Your task to perform on an android device: Empty the shopping cart on newegg. Search for "panasonic triple a" on newegg, select the first entry, add it to the cart, then select checkout. Image 0: 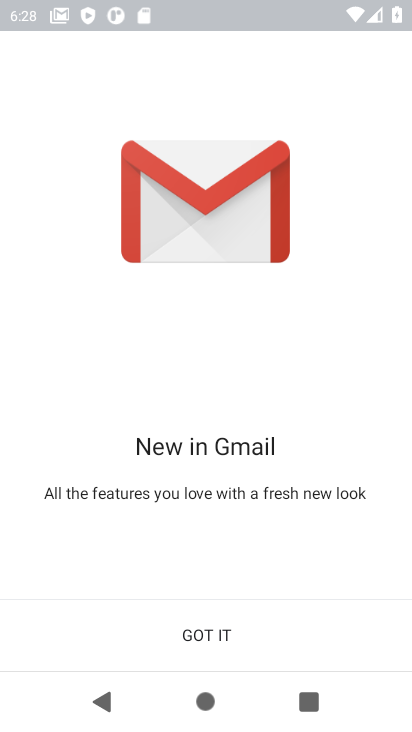
Step 0: press home button
Your task to perform on an android device: Empty the shopping cart on newegg. Search for "panasonic triple a" on newegg, select the first entry, add it to the cart, then select checkout. Image 1: 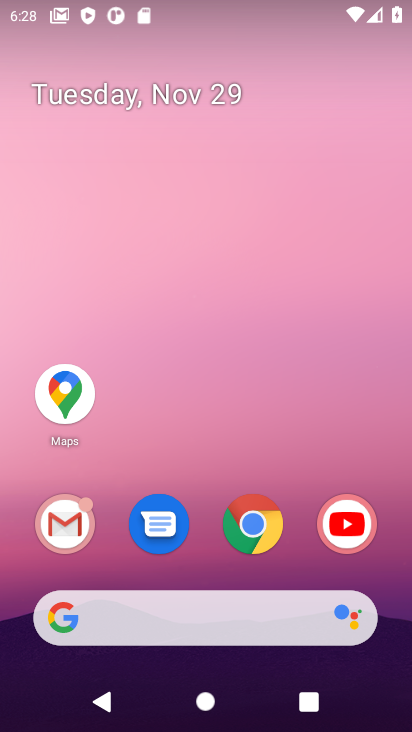
Step 1: click (251, 519)
Your task to perform on an android device: Empty the shopping cart on newegg. Search for "panasonic triple a" on newegg, select the first entry, add it to the cart, then select checkout. Image 2: 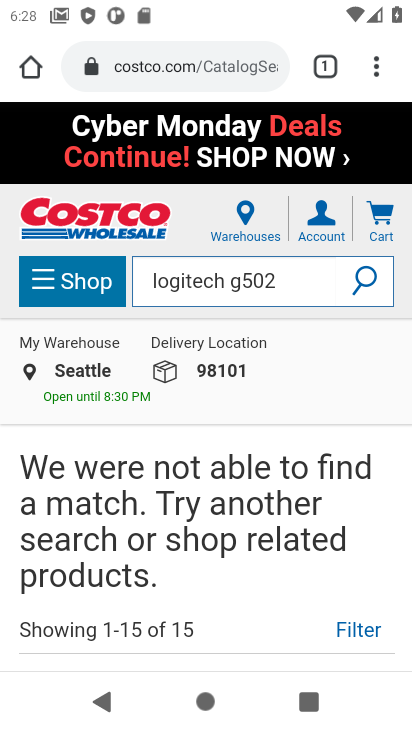
Step 2: click (182, 61)
Your task to perform on an android device: Empty the shopping cart on newegg. Search for "panasonic triple a" on newegg, select the first entry, add it to the cart, then select checkout. Image 3: 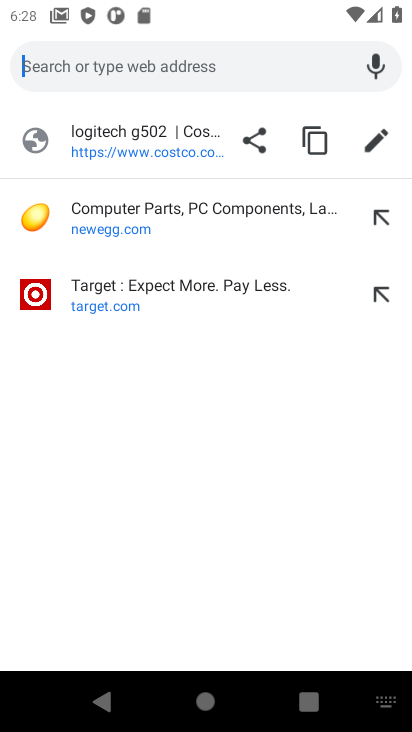
Step 3: click (97, 227)
Your task to perform on an android device: Empty the shopping cart on newegg. Search for "panasonic triple a" on newegg, select the first entry, add it to the cart, then select checkout. Image 4: 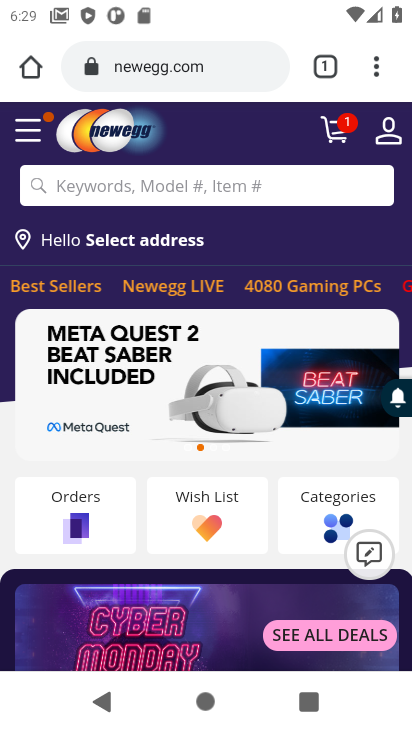
Step 4: click (332, 133)
Your task to perform on an android device: Empty the shopping cart on newegg. Search for "panasonic triple a" on newegg, select the first entry, add it to the cart, then select checkout. Image 5: 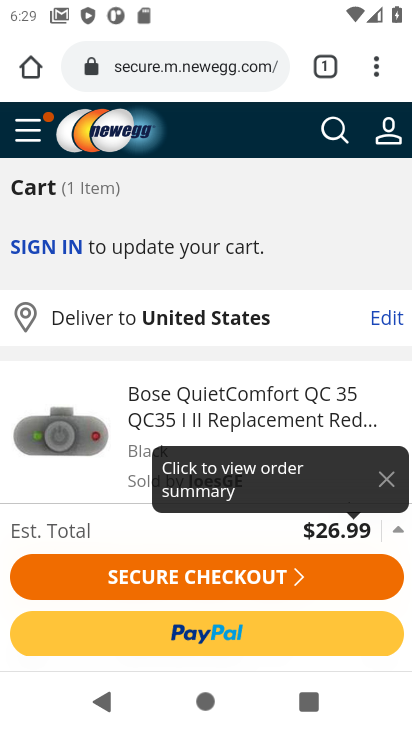
Step 5: drag from (99, 475) to (98, 233)
Your task to perform on an android device: Empty the shopping cart on newegg. Search for "panasonic triple a" on newegg, select the first entry, add it to the cart, then select checkout. Image 6: 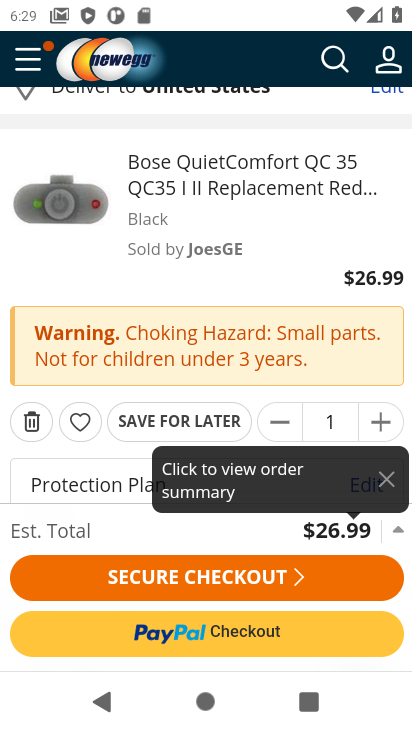
Step 6: click (28, 426)
Your task to perform on an android device: Empty the shopping cart on newegg. Search for "panasonic triple a" on newegg, select the first entry, add it to the cart, then select checkout. Image 7: 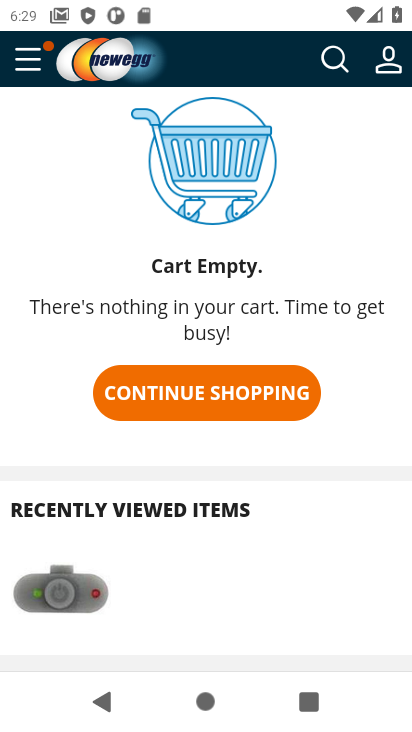
Step 7: click (338, 51)
Your task to perform on an android device: Empty the shopping cart on newegg. Search for "panasonic triple a" on newegg, select the first entry, add it to the cart, then select checkout. Image 8: 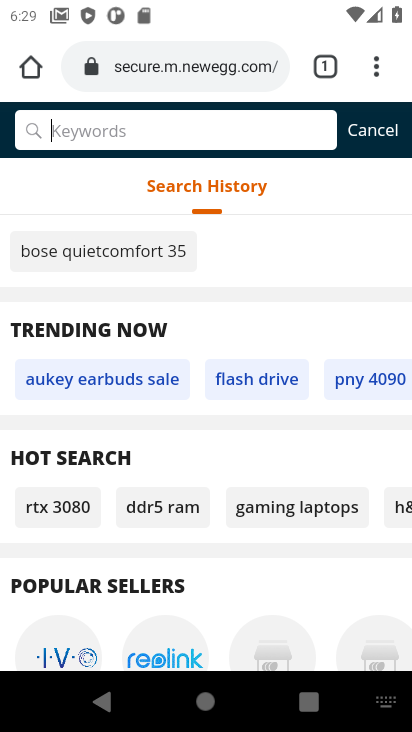
Step 8: type "panasonic triple a"
Your task to perform on an android device: Empty the shopping cart on newegg. Search for "panasonic triple a" on newegg, select the first entry, add it to the cart, then select checkout. Image 9: 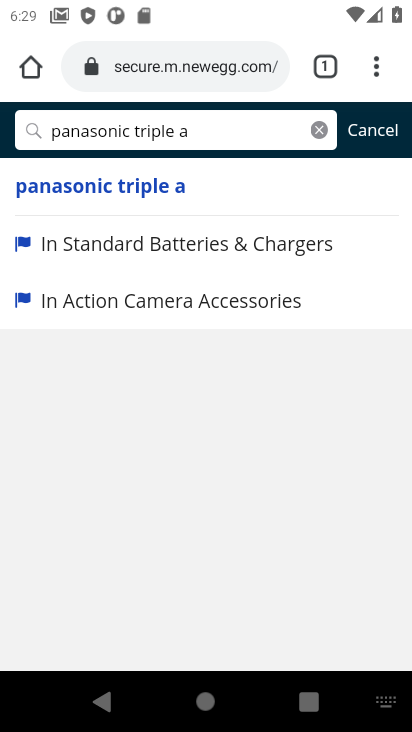
Step 9: click (146, 192)
Your task to perform on an android device: Empty the shopping cart on newegg. Search for "panasonic triple a" on newegg, select the first entry, add it to the cart, then select checkout. Image 10: 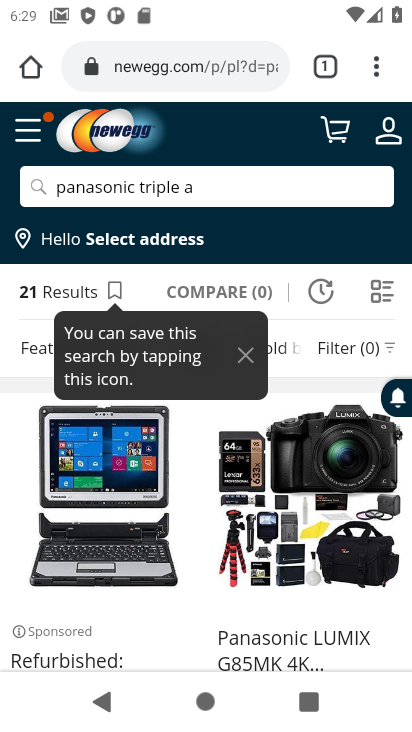
Step 10: task complete